Your task to perform on an android device: Open internet settings Image 0: 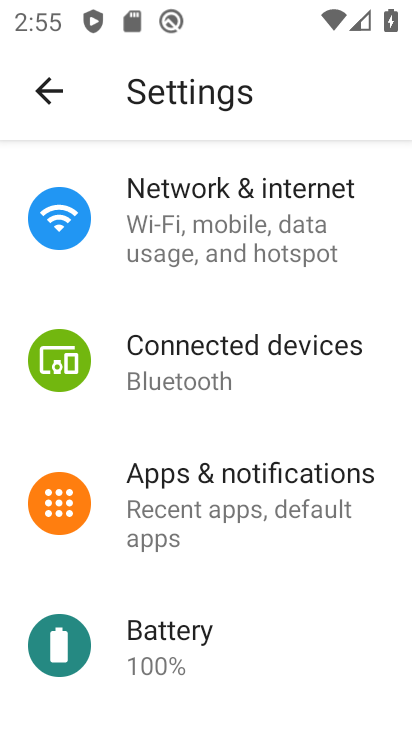
Step 0: click (227, 212)
Your task to perform on an android device: Open internet settings Image 1: 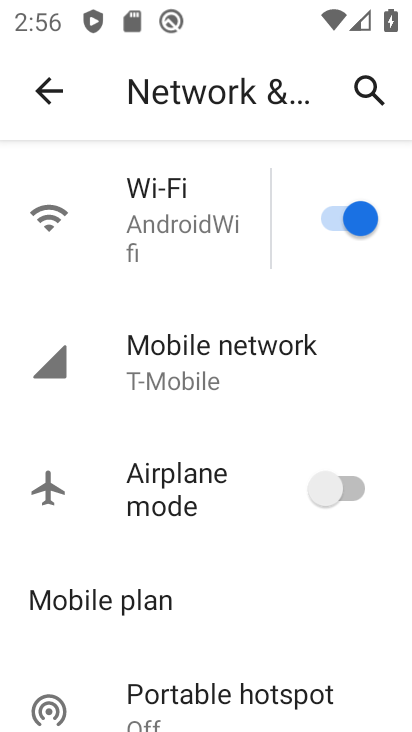
Step 1: click (199, 346)
Your task to perform on an android device: Open internet settings Image 2: 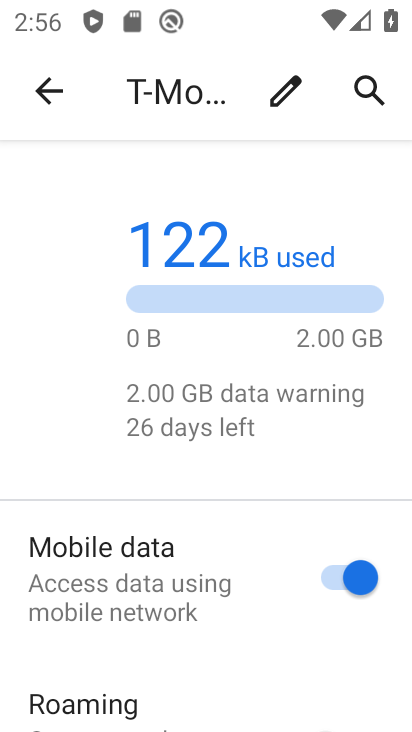
Step 2: task complete